Your task to perform on an android device: clear history in the chrome app Image 0: 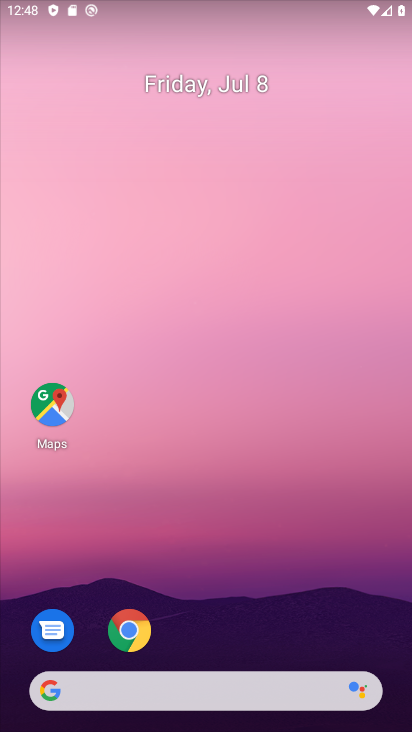
Step 0: drag from (358, 560) to (395, 58)
Your task to perform on an android device: clear history in the chrome app Image 1: 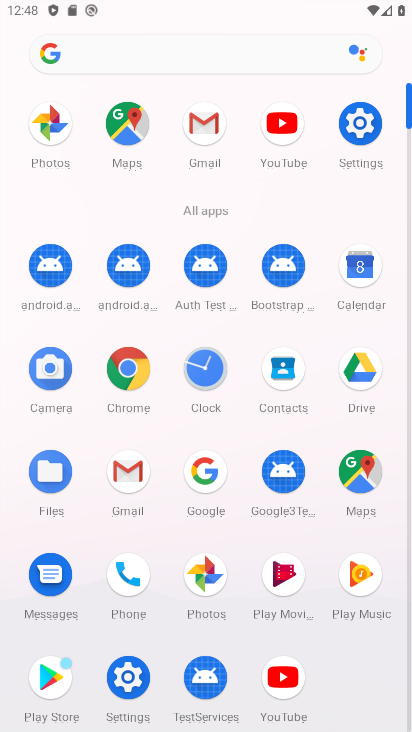
Step 1: click (112, 368)
Your task to perform on an android device: clear history in the chrome app Image 2: 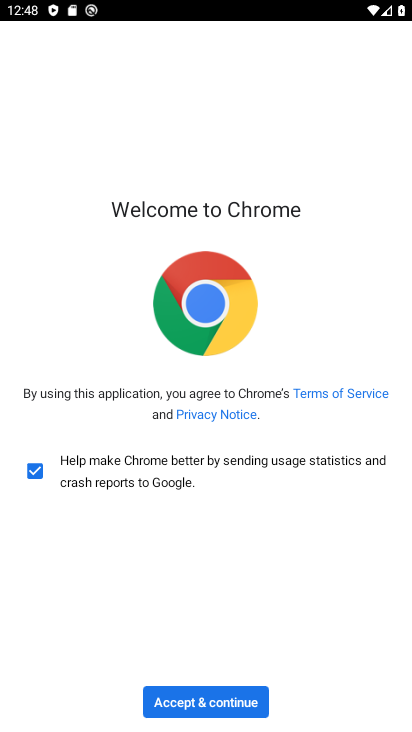
Step 2: click (232, 708)
Your task to perform on an android device: clear history in the chrome app Image 3: 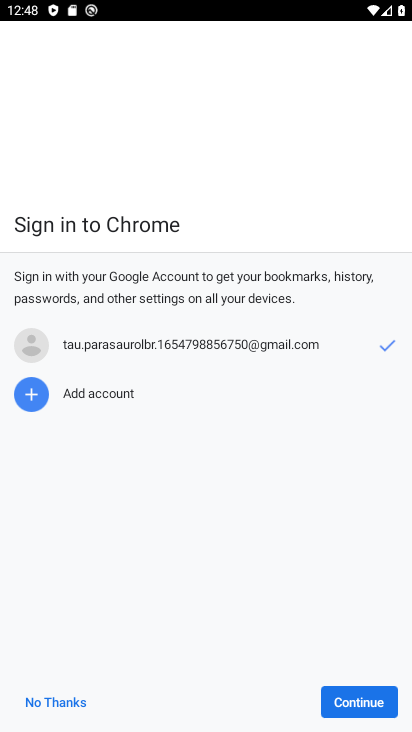
Step 3: click (61, 696)
Your task to perform on an android device: clear history in the chrome app Image 4: 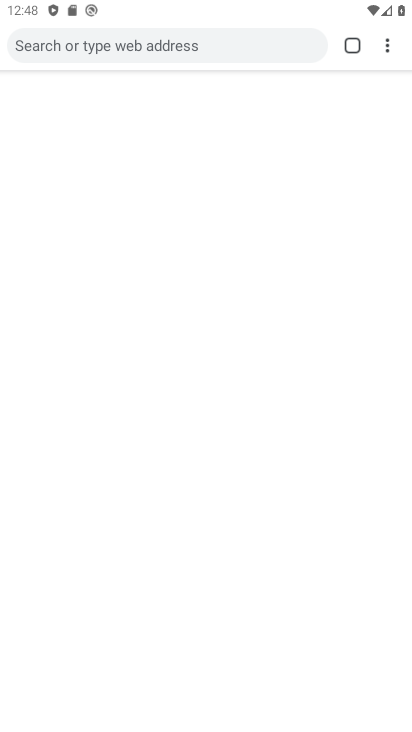
Step 4: task complete